Your task to perform on an android device: Open Chrome and go to settings Image 0: 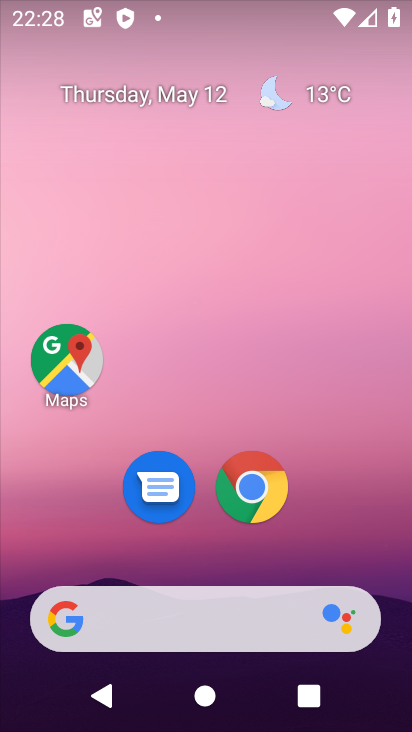
Step 0: click (260, 500)
Your task to perform on an android device: Open Chrome and go to settings Image 1: 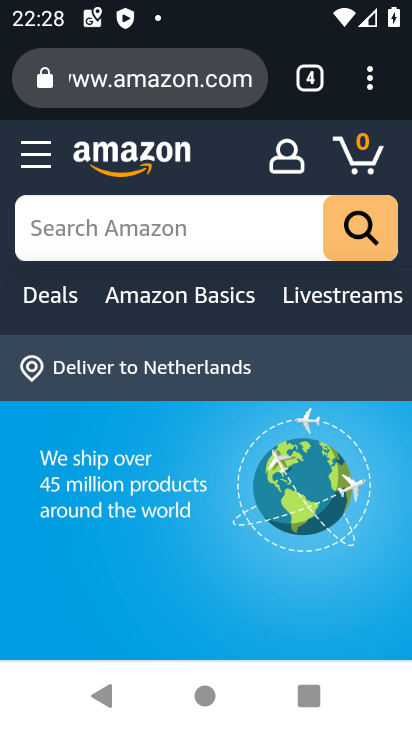
Step 1: click (397, 62)
Your task to perform on an android device: Open Chrome and go to settings Image 2: 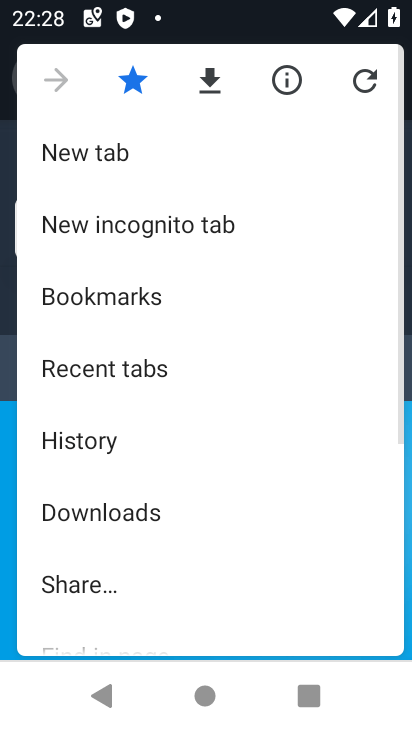
Step 2: drag from (123, 617) to (176, 360)
Your task to perform on an android device: Open Chrome and go to settings Image 3: 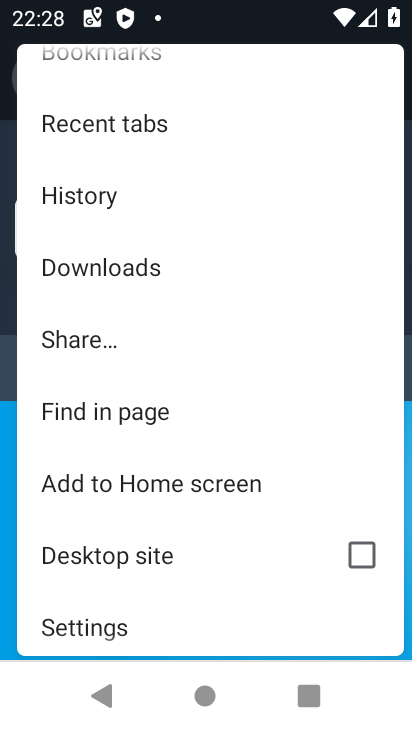
Step 3: click (130, 611)
Your task to perform on an android device: Open Chrome and go to settings Image 4: 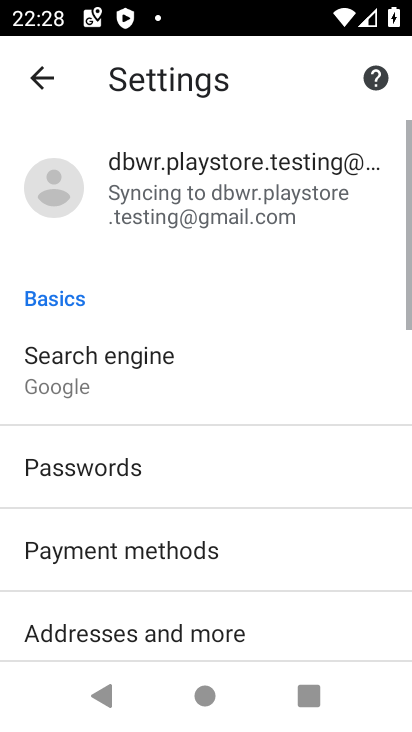
Step 4: task complete